Your task to perform on an android device: turn off location Image 0: 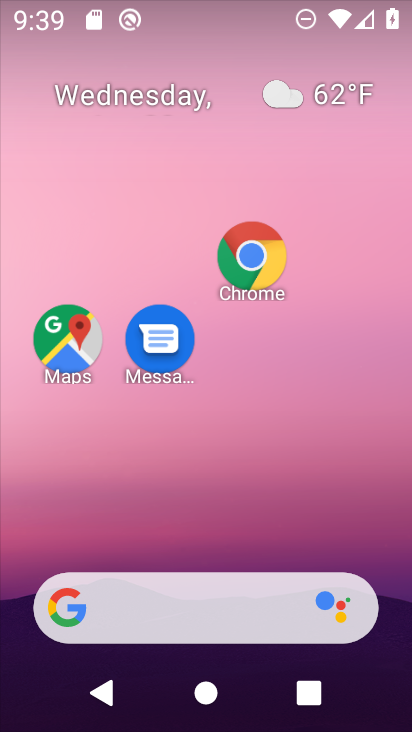
Step 0: drag from (198, 442) to (101, 75)
Your task to perform on an android device: turn off location Image 1: 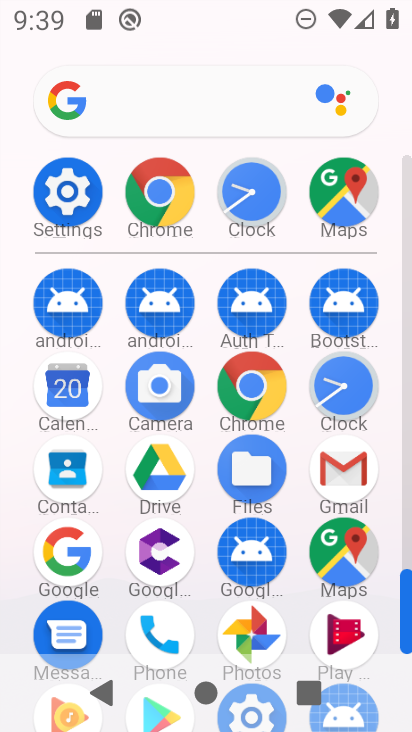
Step 1: click (70, 196)
Your task to perform on an android device: turn off location Image 2: 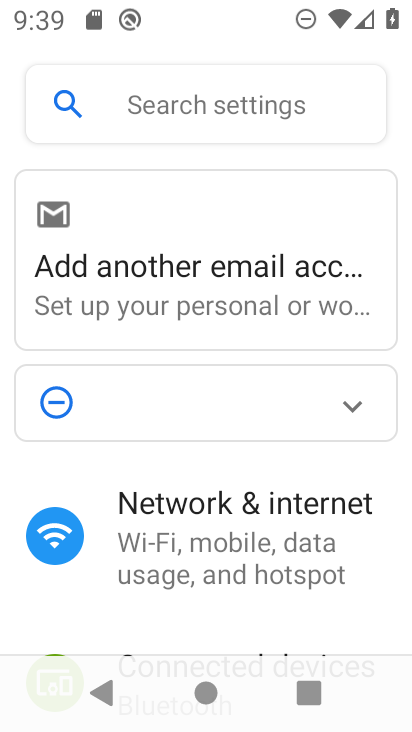
Step 2: drag from (279, 600) to (249, 87)
Your task to perform on an android device: turn off location Image 3: 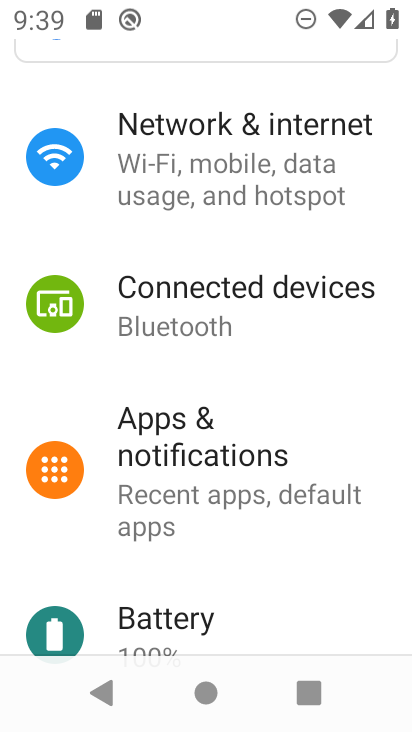
Step 3: drag from (227, 427) to (227, 3)
Your task to perform on an android device: turn off location Image 4: 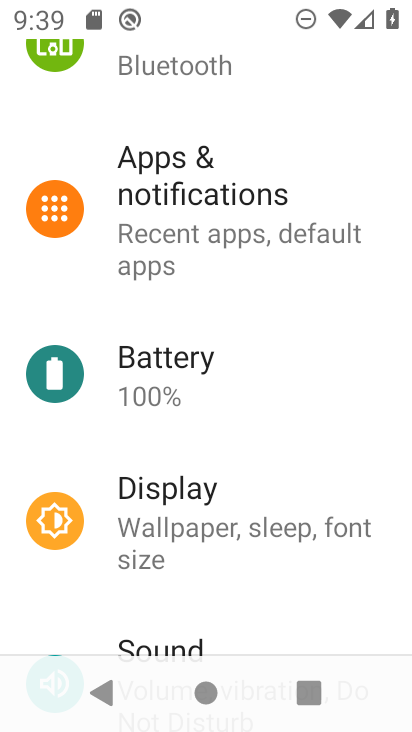
Step 4: drag from (196, 531) to (154, 82)
Your task to perform on an android device: turn off location Image 5: 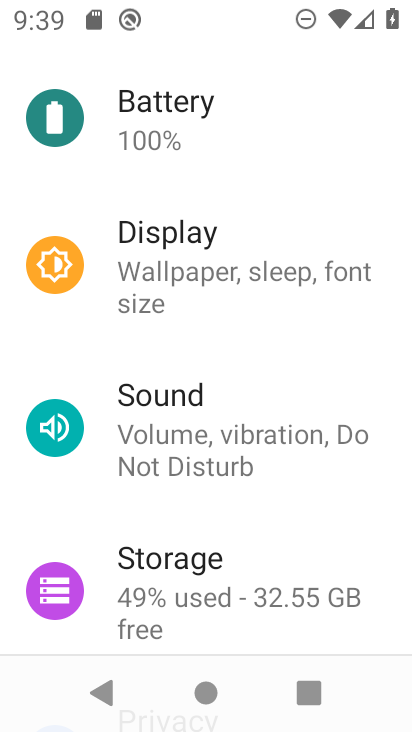
Step 5: drag from (260, 523) to (257, 137)
Your task to perform on an android device: turn off location Image 6: 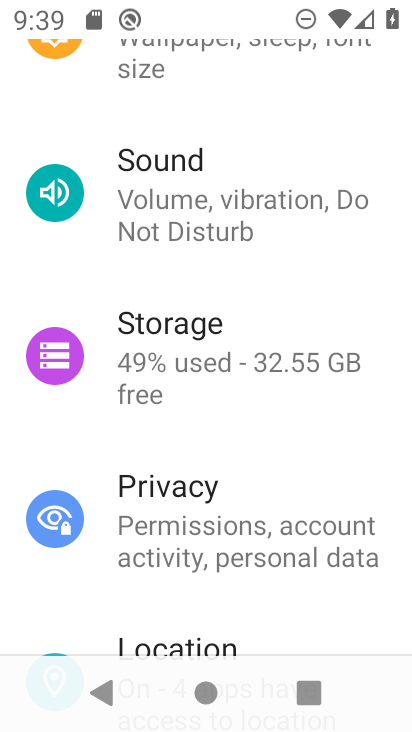
Step 6: drag from (228, 574) to (241, 250)
Your task to perform on an android device: turn off location Image 7: 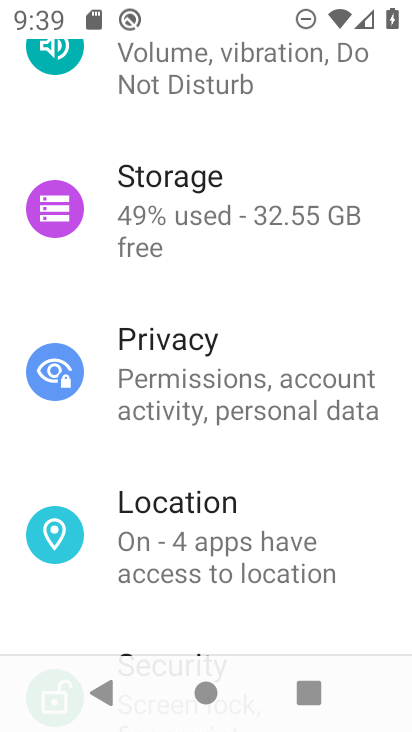
Step 7: click (177, 550)
Your task to perform on an android device: turn off location Image 8: 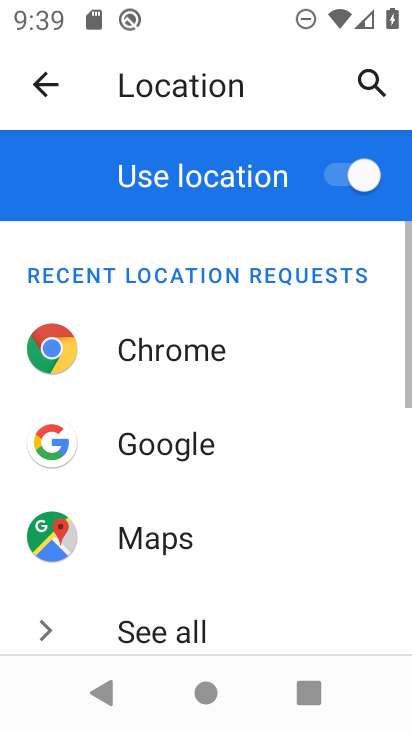
Step 8: drag from (227, 594) to (245, 242)
Your task to perform on an android device: turn off location Image 9: 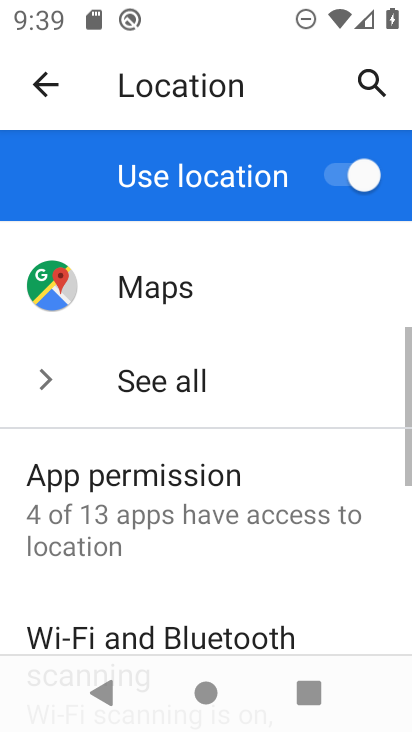
Step 9: drag from (259, 585) to (260, 345)
Your task to perform on an android device: turn off location Image 10: 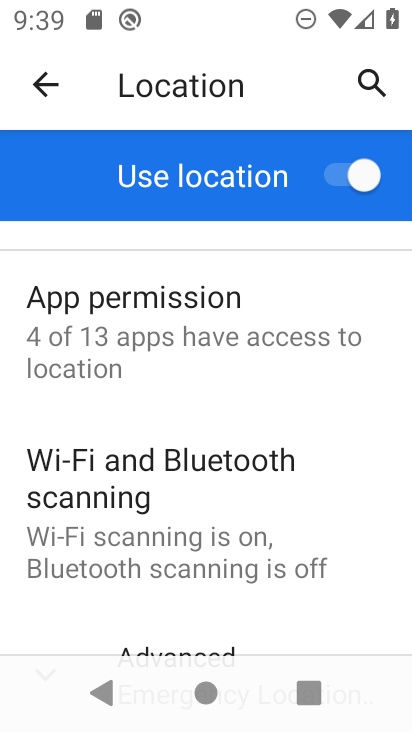
Step 10: click (355, 163)
Your task to perform on an android device: turn off location Image 11: 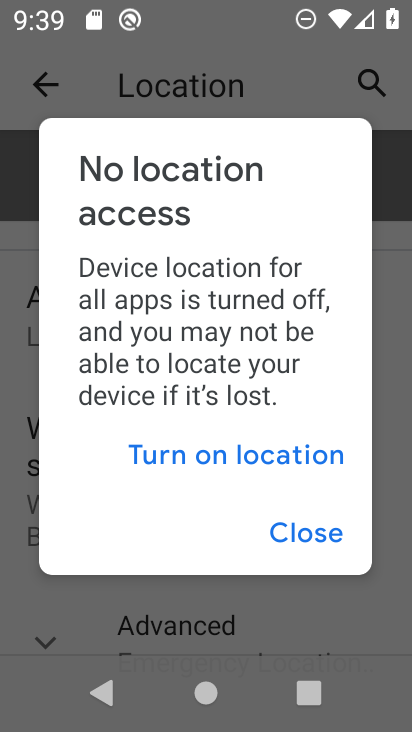
Step 11: click (298, 533)
Your task to perform on an android device: turn off location Image 12: 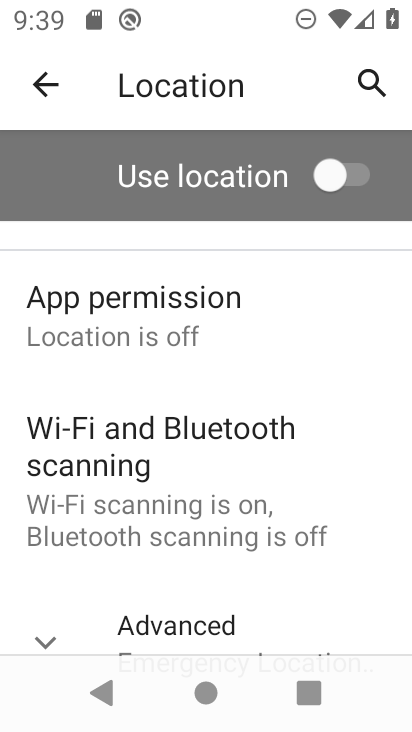
Step 12: task complete